Your task to perform on an android device: set the timer Image 0: 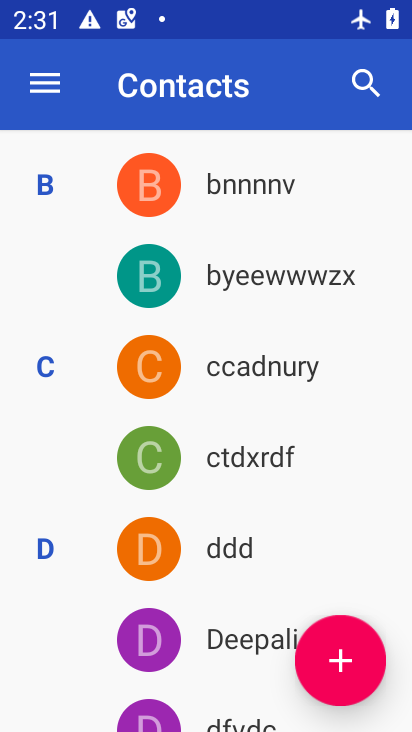
Step 0: press home button
Your task to perform on an android device: set the timer Image 1: 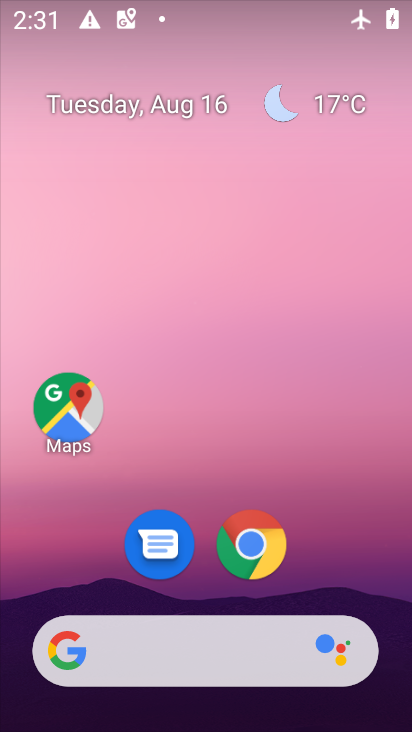
Step 1: drag from (186, 665) to (284, 70)
Your task to perform on an android device: set the timer Image 2: 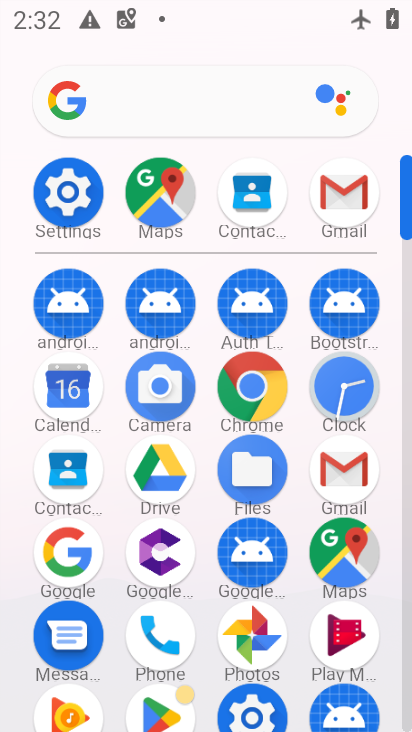
Step 2: click (342, 384)
Your task to perform on an android device: set the timer Image 3: 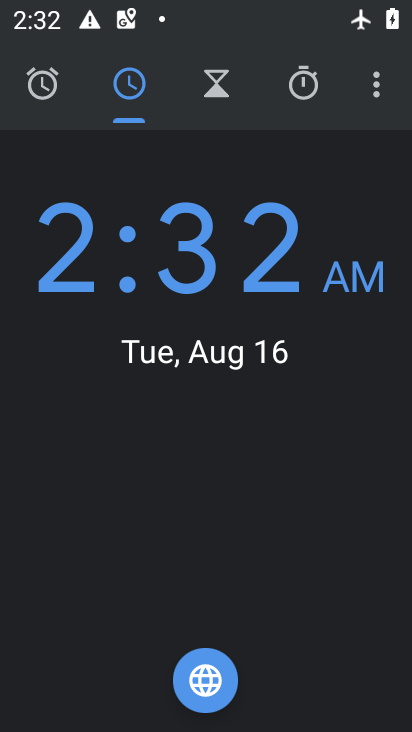
Step 3: click (221, 83)
Your task to perform on an android device: set the timer Image 4: 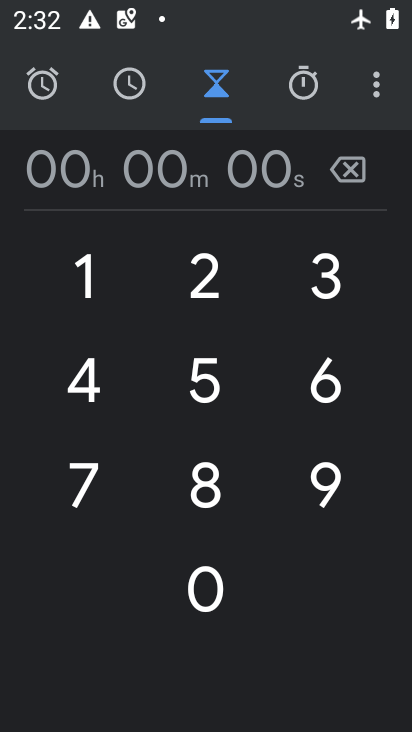
Step 4: type "135"
Your task to perform on an android device: set the timer Image 5: 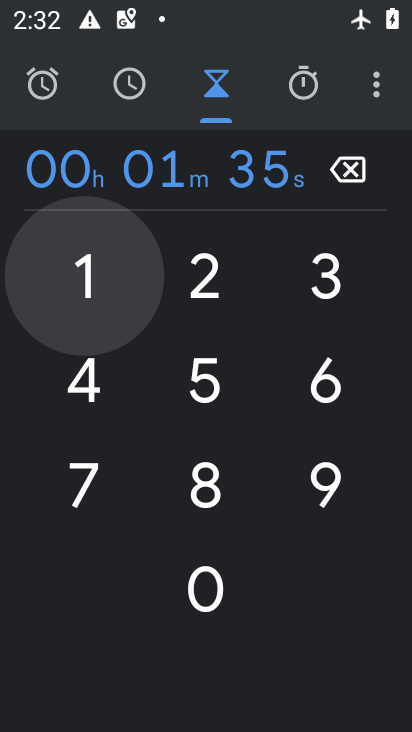
Step 5: type ""
Your task to perform on an android device: set the timer Image 6: 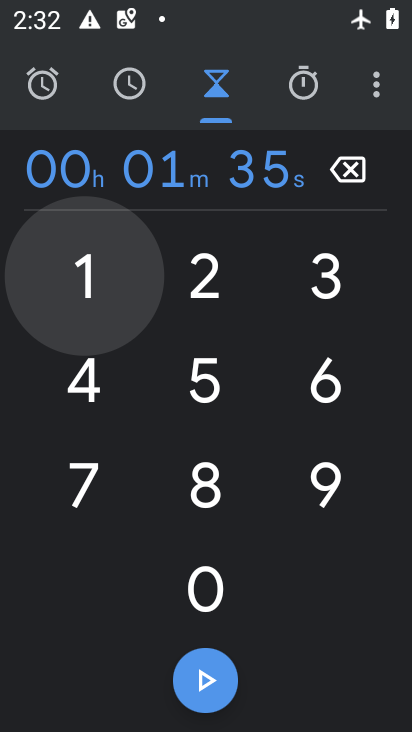
Step 6: click (206, 680)
Your task to perform on an android device: set the timer Image 7: 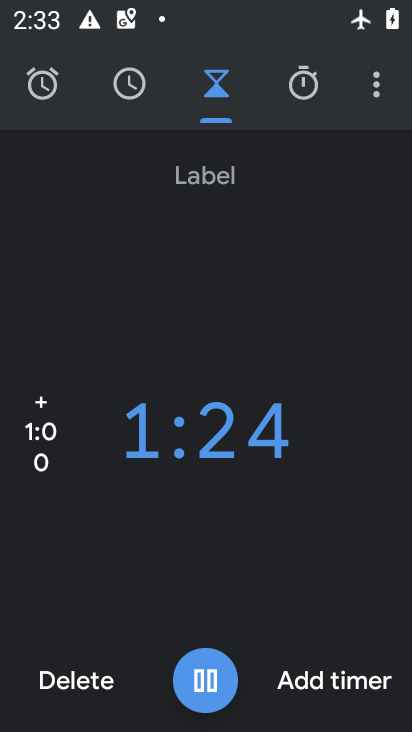
Step 7: click (206, 680)
Your task to perform on an android device: set the timer Image 8: 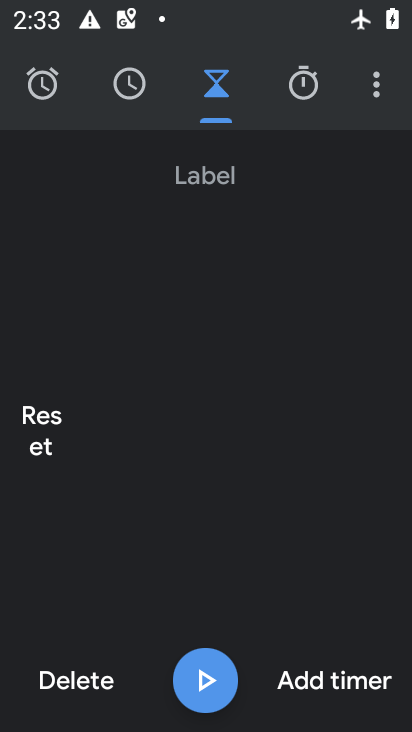
Step 8: task complete